Your task to perform on an android device: Search for "asus zenbook" on ebay.com, select the first entry, add it to the cart, then select checkout. Image 0: 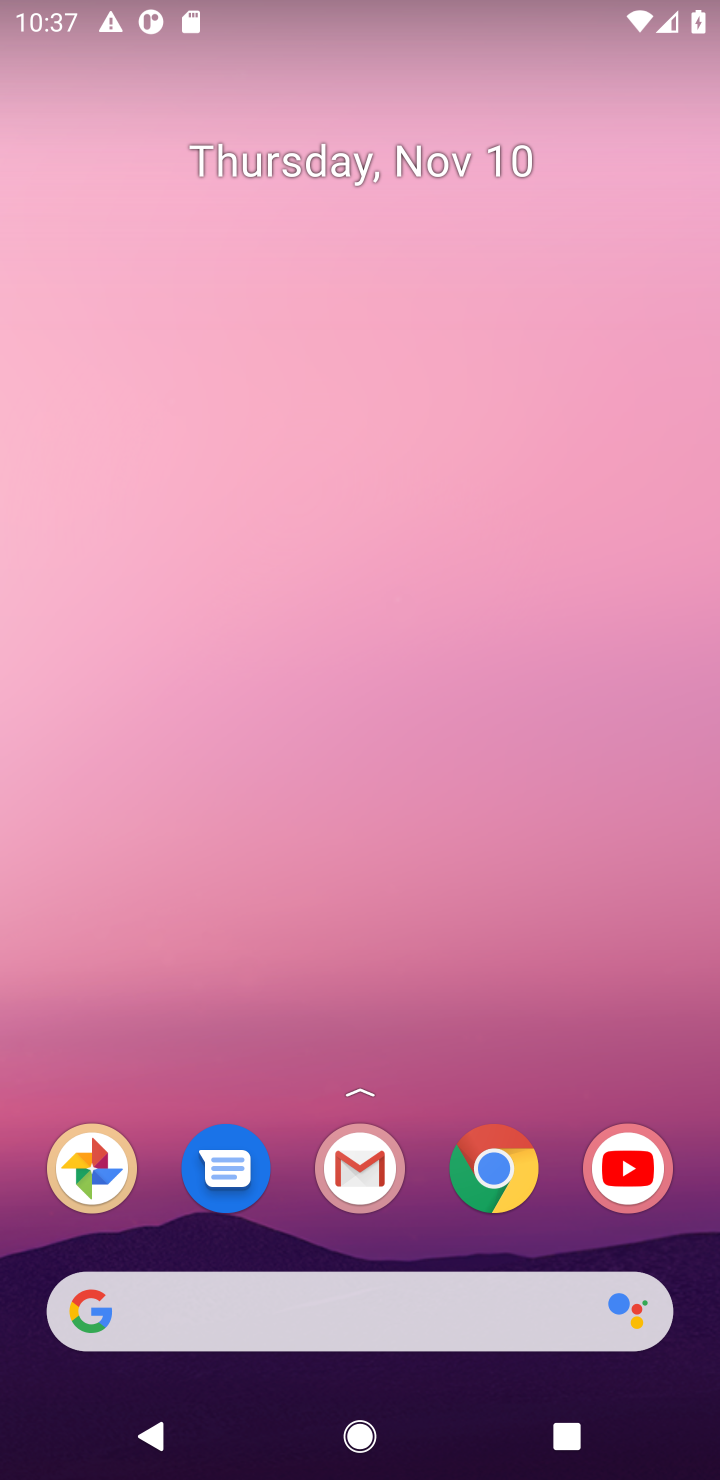
Step 0: click (501, 1170)
Your task to perform on an android device: Search for "asus zenbook" on ebay.com, select the first entry, add it to the cart, then select checkout. Image 1: 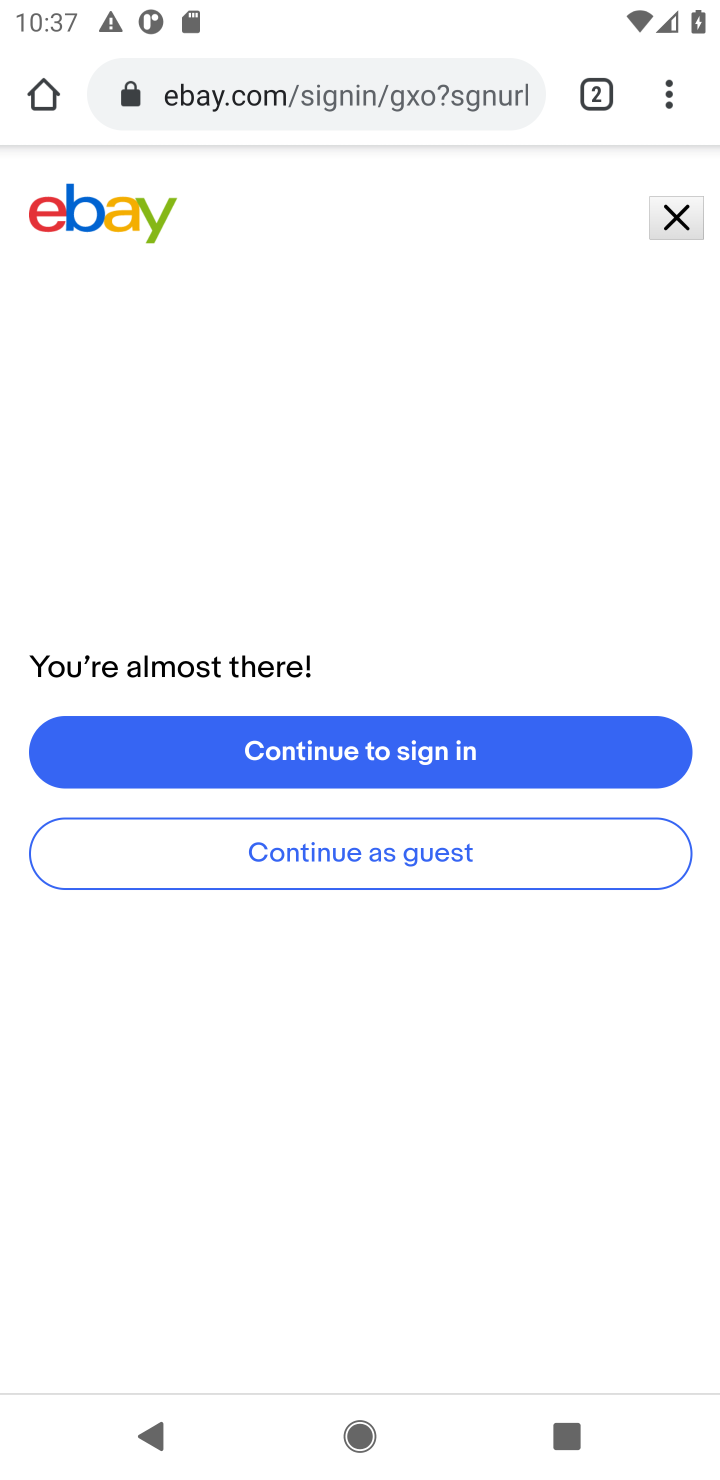
Step 1: click (676, 217)
Your task to perform on an android device: Search for "asus zenbook" on ebay.com, select the first entry, add it to the cart, then select checkout. Image 2: 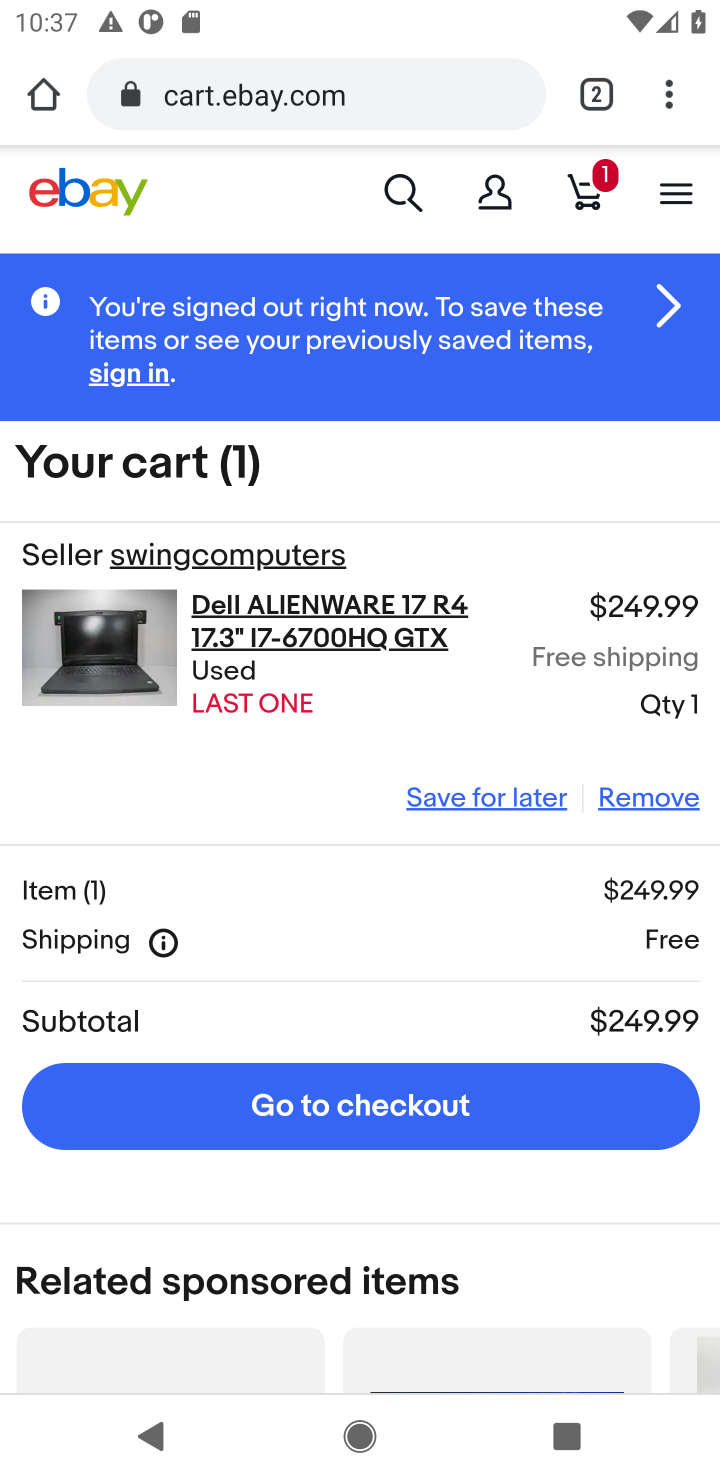
Step 2: click (413, 189)
Your task to perform on an android device: Search for "asus zenbook" on ebay.com, select the first entry, add it to the cart, then select checkout. Image 3: 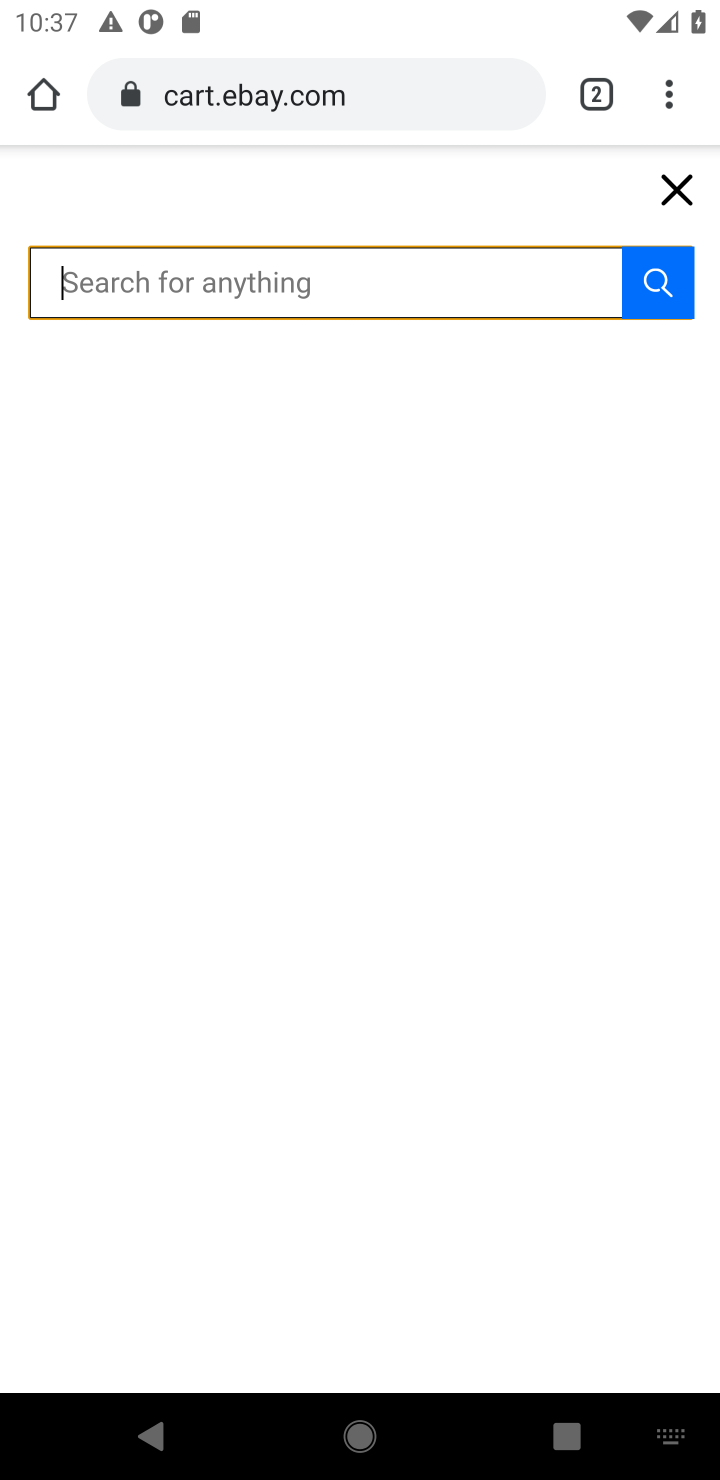
Step 3: type "asus zenbook"
Your task to perform on an android device: Search for "asus zenbook" on ebay.com, select the first entry, add it to the cart, then select checkout. Image 4: 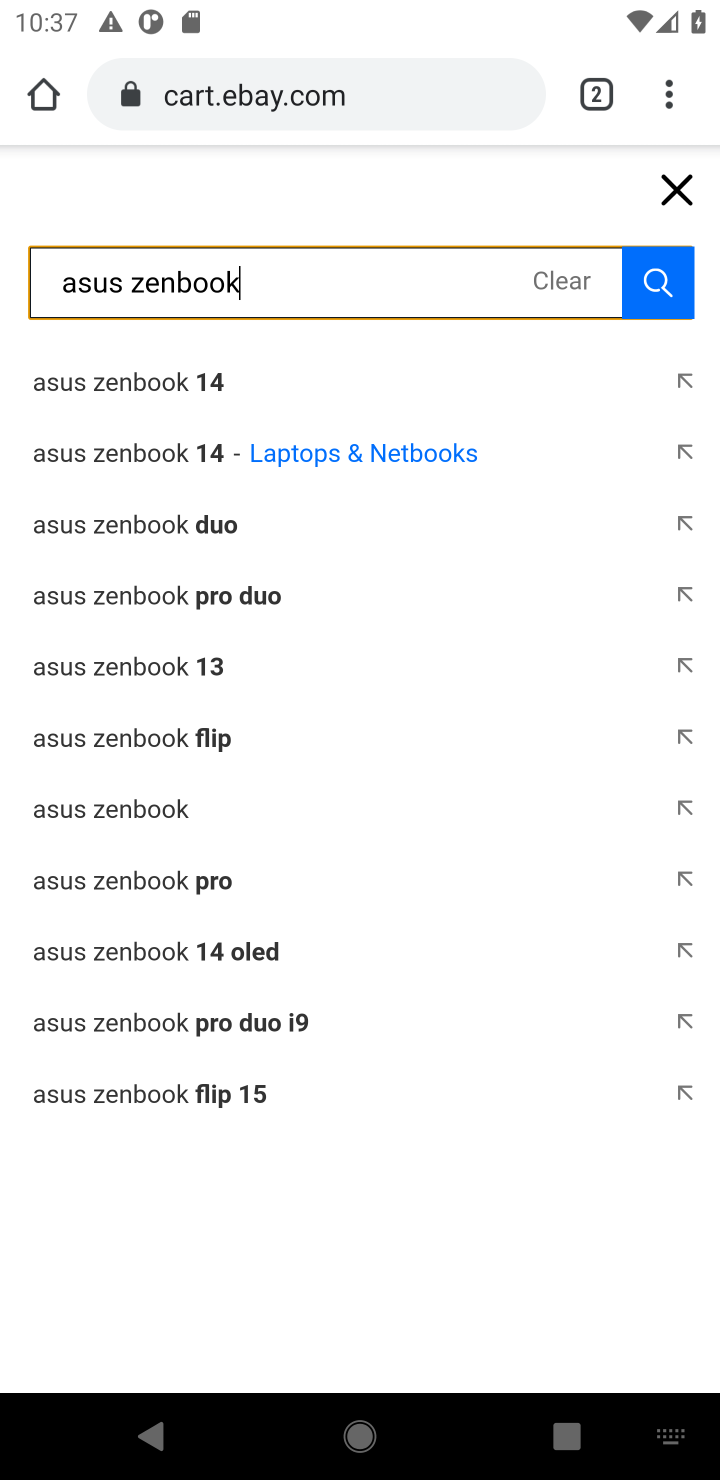
Step 4: click (171, 812)
Your task to perform on an android device: Search for "asus zenbook" on ebay.com, select the first entry, add it to the cart, then select checkout. Image 5: 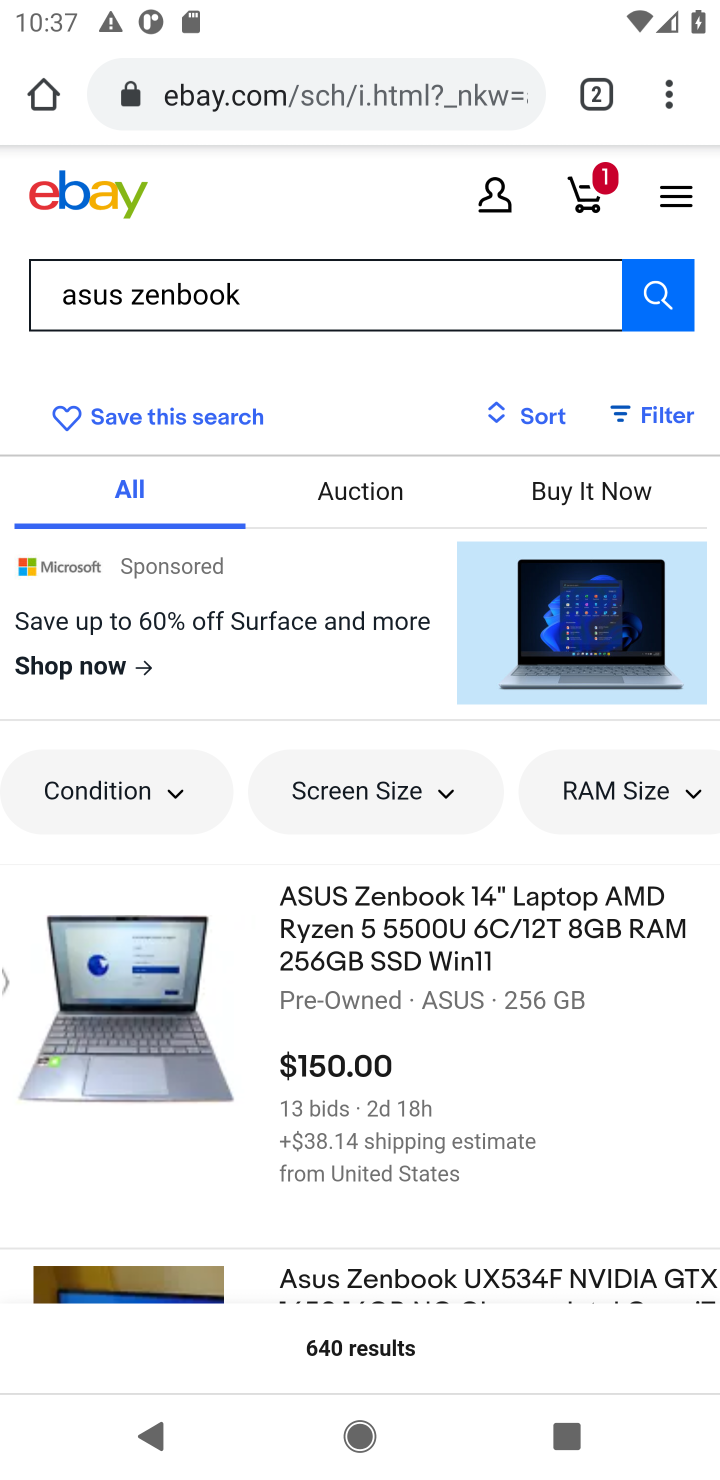
Step 5: click (132, 1030)
Your task to perform on an android device: Search for "asus zenbook" on ebay.com, select the first entry, add it to the cart, then select checkout. Image 6: 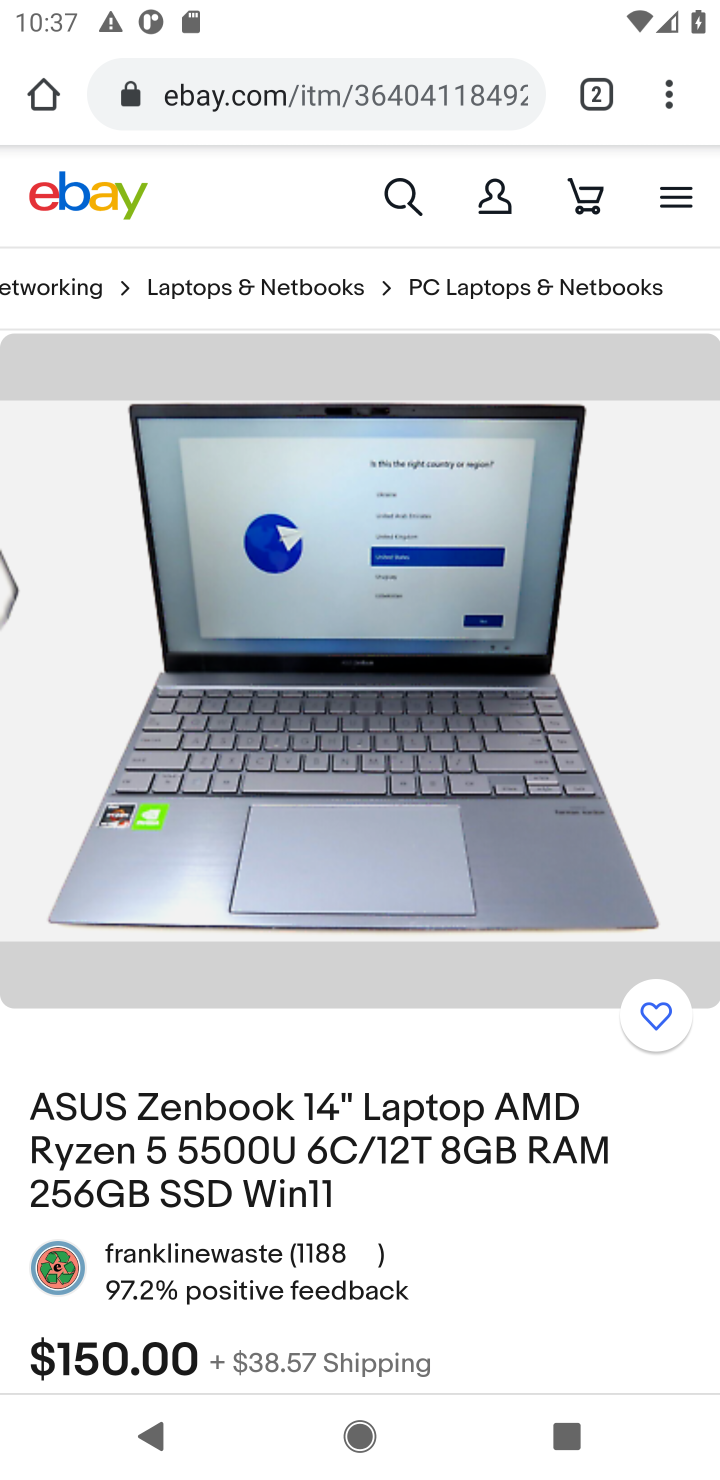
Step 6: task complete